Your task to perform on an android device: Open the calendar and show me this week's events? Image 0: 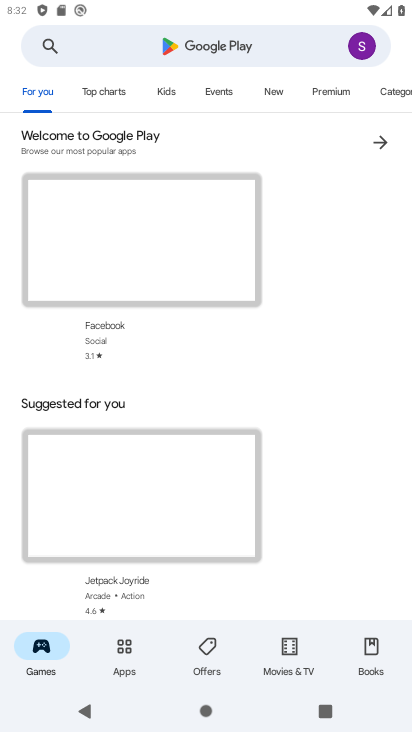
Step 0: press home button
Your task to perform on an android device: Open the calendar and show me this week's events? Image 1: 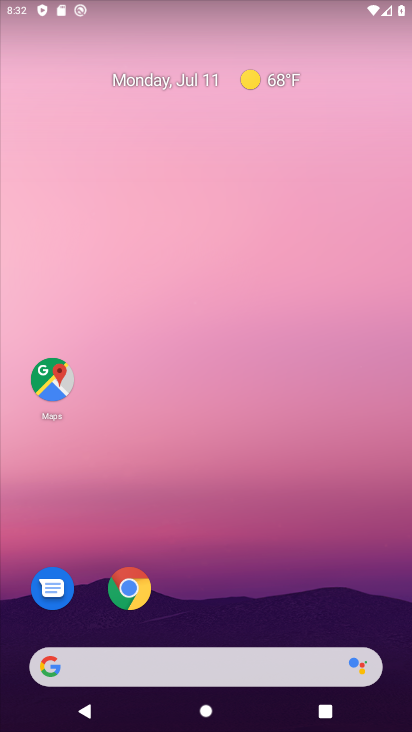
Step 1: drag from (223, 645) to (184, 68)
Your task to perform on an android device: Open the calendar and show me this week's events? Image 2: 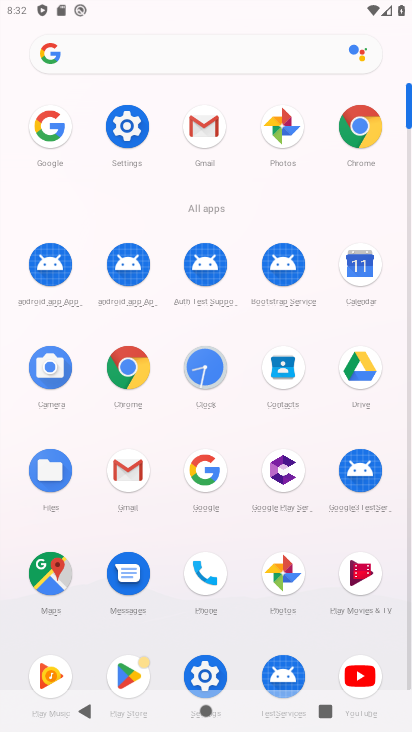
Step 2: click (357, 259)
Your task to perform on an android device: Open the calendar and show me this week's events? Image 3: 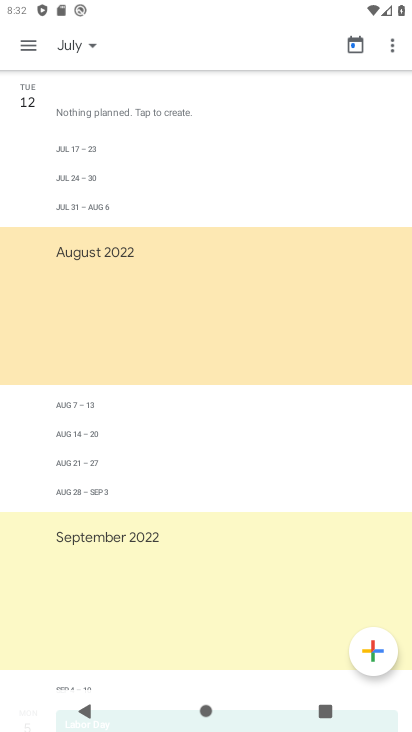
Step 3: click (28, 56)
Your task to perform on an android device: Open the calendar and show me this week's events? Image 4: 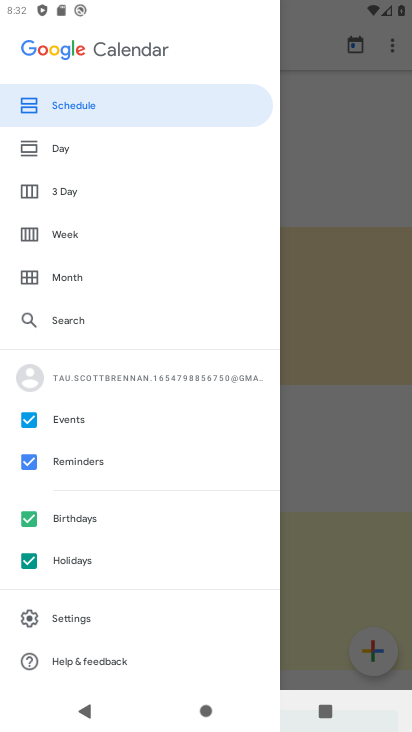
Step 4: click (62, 234)
Your task to perform on an android device: Open the calendar and show me this week's events? Image 5: 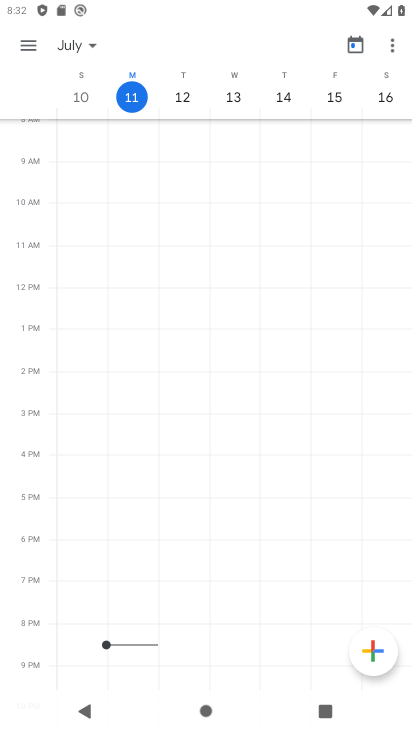
Step 5: task complete